Your task to perform on an android device: Show me popular games on the Play Store Image 0: 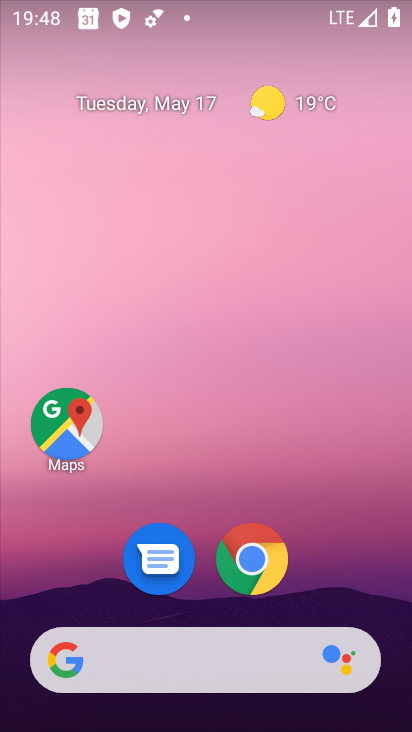
Step 0: drag from (203, 553) to (307, 111)
Your task to perform on an android device: Show me popular games on the Play Store Image 1: 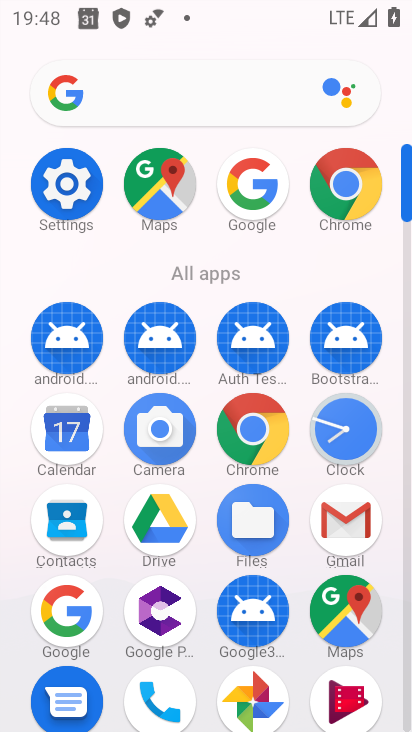
Step 1: drag from (192, 570) to (229, 275)
Your task to perform on an android device: Show me popular games on the Play Store Image 2: 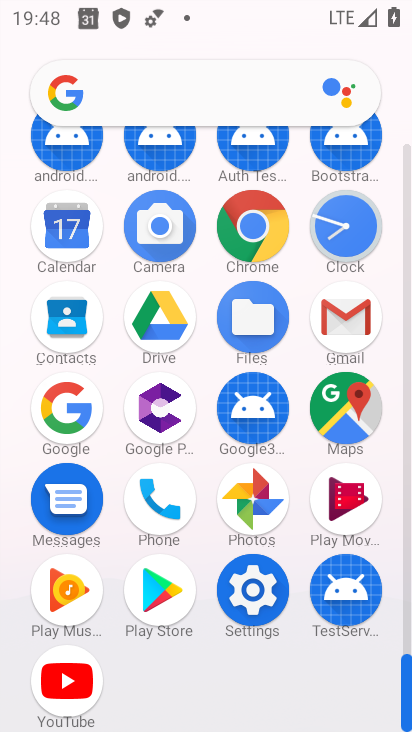
Step 2: click (172, 581)
Your task to perform on an android device: Show me popular games on the Play Store Image 3: 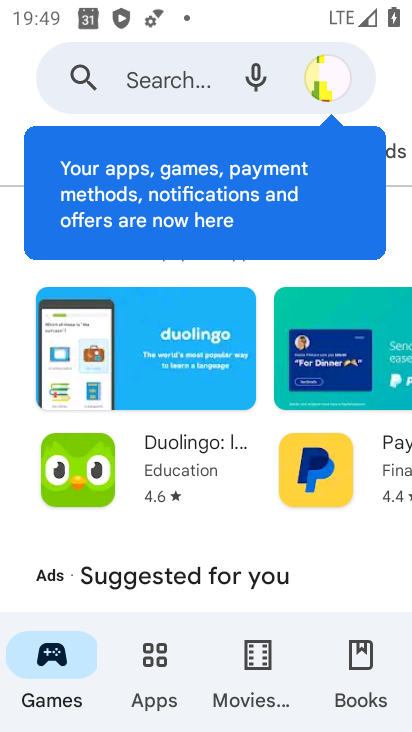
Step 3: drag from (189, 555) to (330, 115)
Your task to perform on an android device: Show me popular games on the Play Store Image 4: 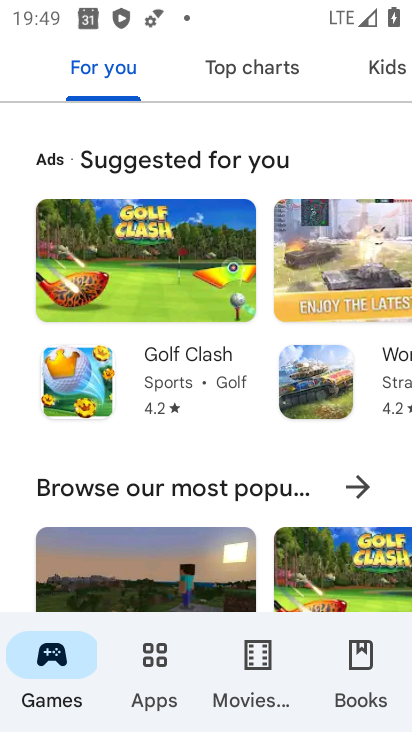
Step 4: drag from (219, 431) to (334, 175)
Your task to perform on an android device: Show me popular games on the Play Store Image 5: 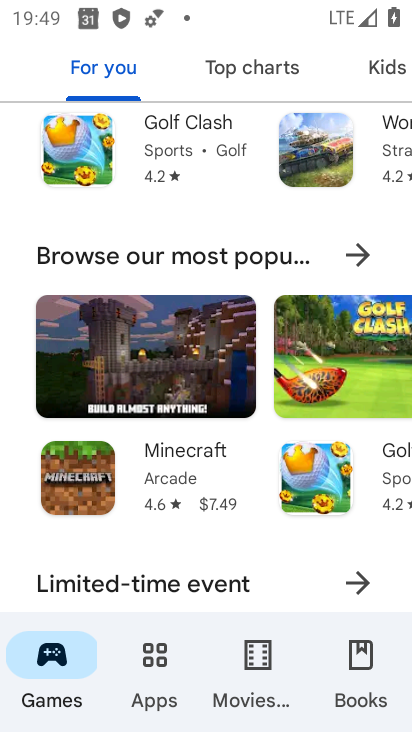
Step 5: click (360, 266)
Your task to perform on an android device: Show me popular games on the Play Store Image 6: 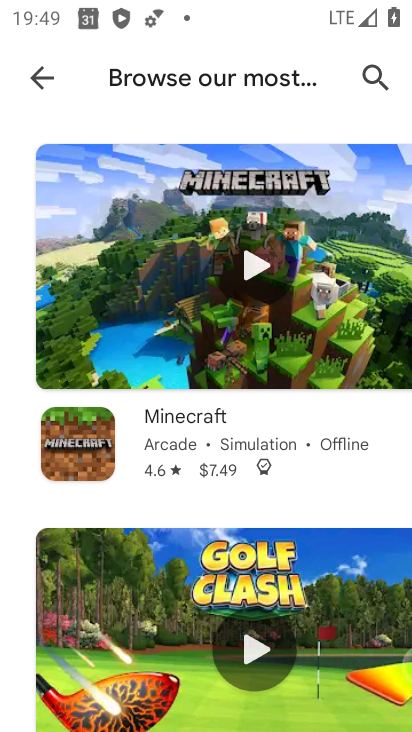
Step 6: task complete